Your task to perform on an android device: Open Google Chrome and click the shortcut for Amazon.com Image 0: 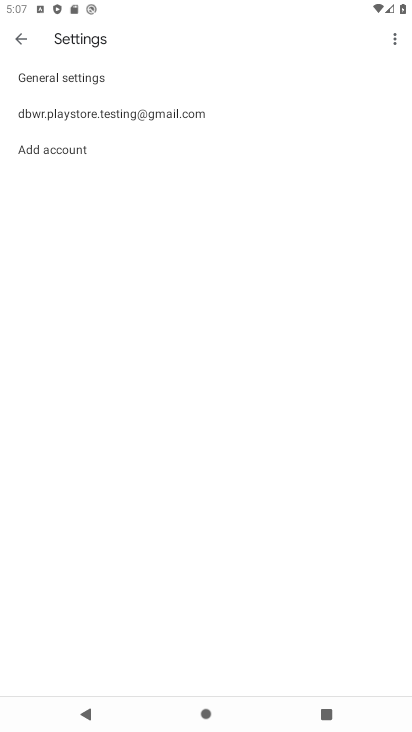
Step 0: press home button
Your task to perform on an android device: Open Google Chrome and click the shortcut for Amazon.com Image 1: 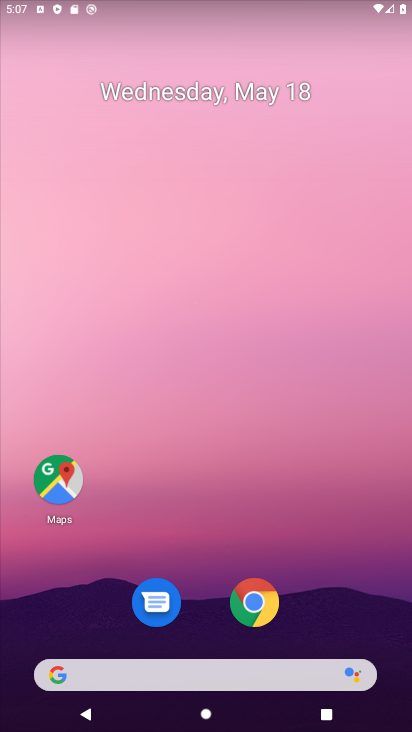
Step 1: drag from (229, 668) to (255, 115)
Your task to perform on an android device: Open Google Chrome and click the shortcut for Amazon.com Image 2: 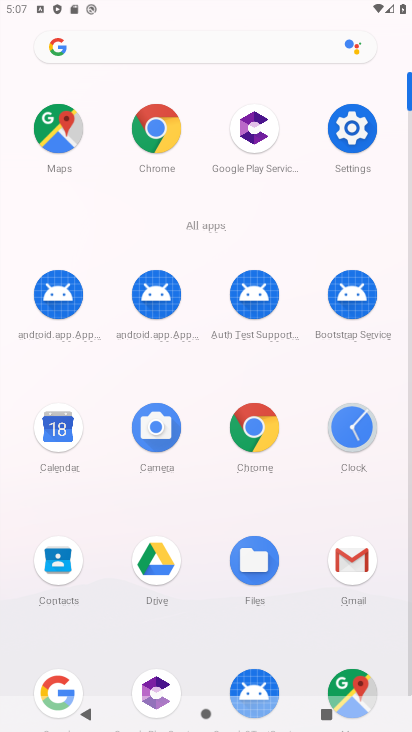
Step 2: click (242, 434)
Your task to perform on an android device: Open Google Chrome and click the shortcut for Amazon.com Image 3: 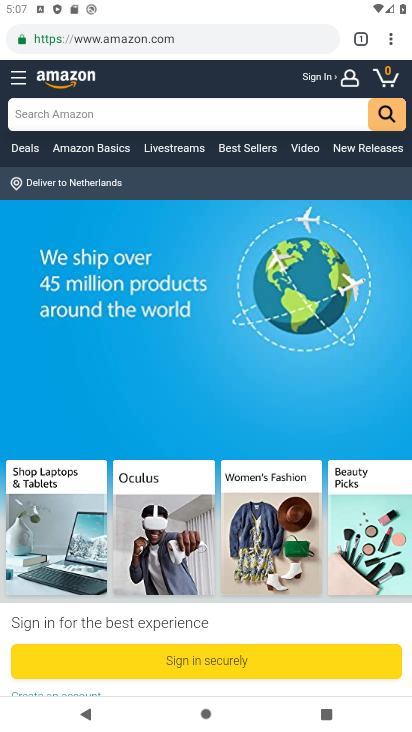
Step 3: click (391, 41)
Your task to perform on an android device: Open Google Chrome and click the shortcut for Amazon.com Image 4: 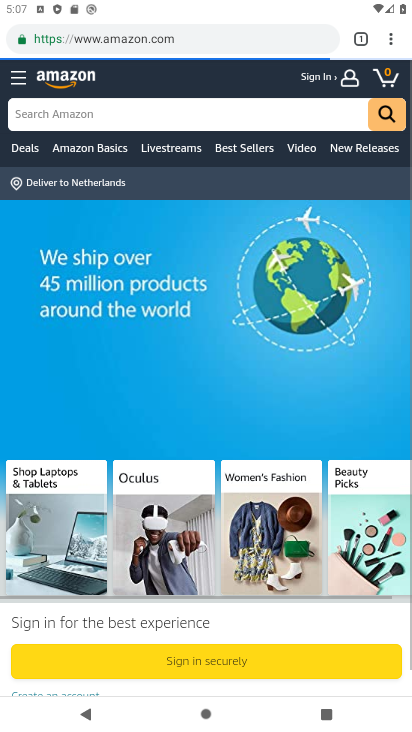
Step 4: click (391, 37)
Your task to perform on an android device: Open Google Chrome and click the shortcut for Amazon.com Image 5: 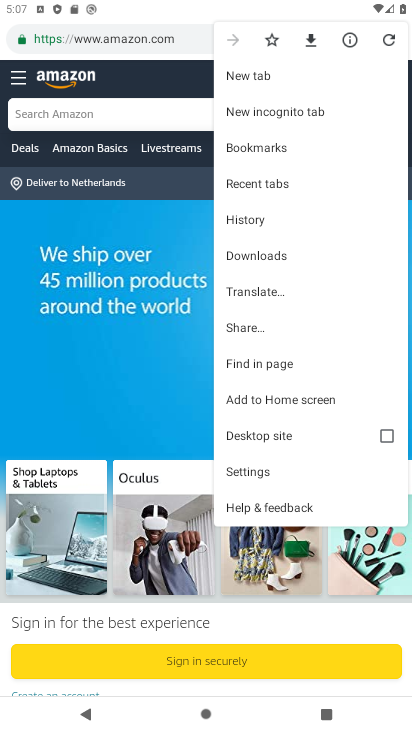
Step 5: click (283, 403)
Your task to perform on an android device: Open Google Chrome and click the shortcut for Amazon.com Image 6: 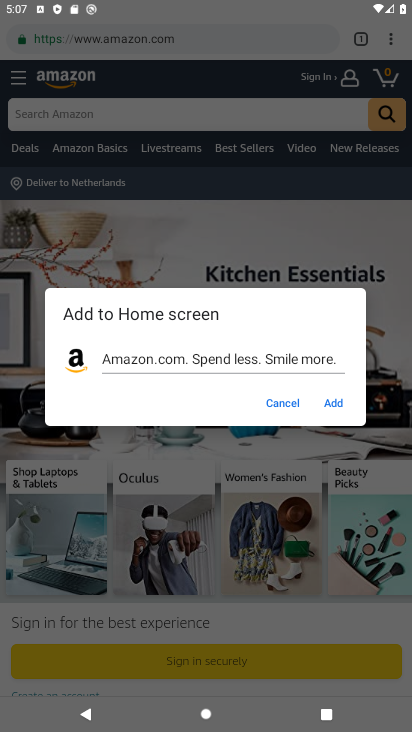
Step 6: click (322, 396)
Your task to perform on an android device: Open Google Chrome and click the shortcut for Amazon.com Image 7: 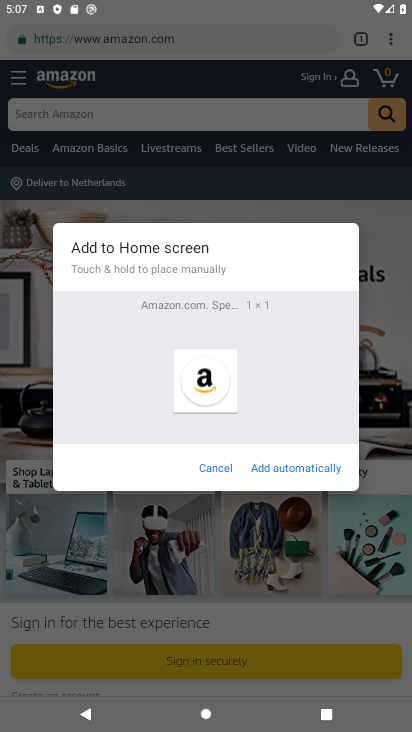
Step 7: click (332, 460)
Your task to perform on an android device: Open Google Chrome and click the shortcut for Amazon.com Image 8: 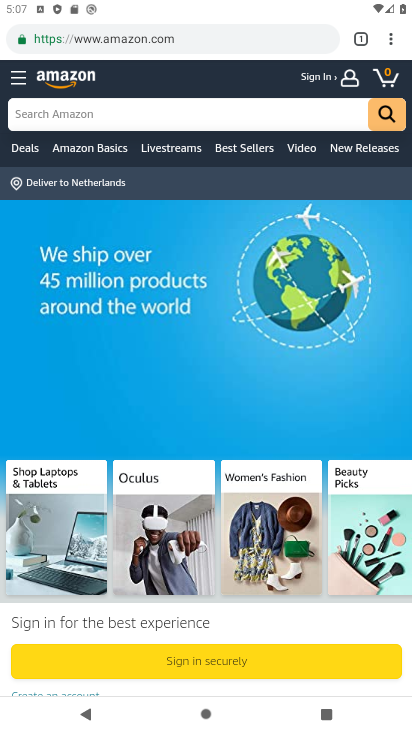
Step 8: task complete